Your task to perform on an android device: toggle sleep mode Image 0: 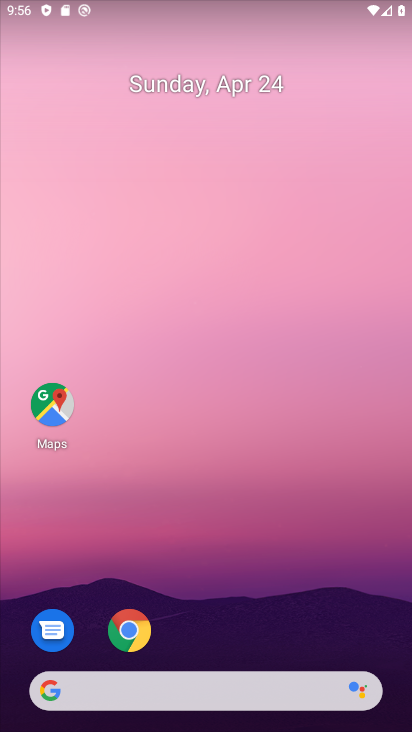
Step 0: drag from (203, 627) to (203, 165)
Your task to perform on an android device: toggle sleep mode Image 1: 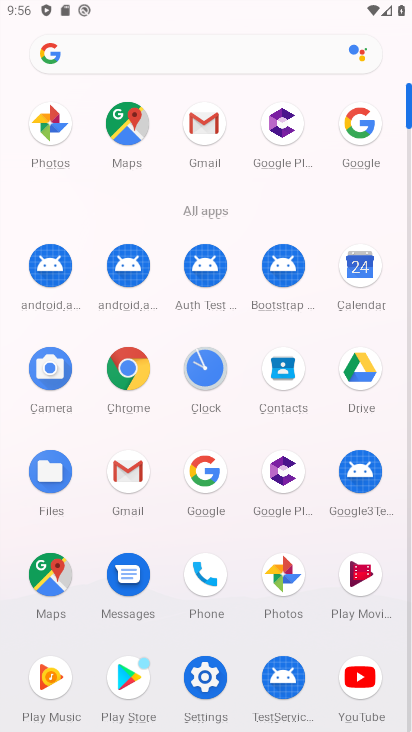
Step 1: click (193, 657)
Your task to perform on an android device: toggle sleep mode Image 2: 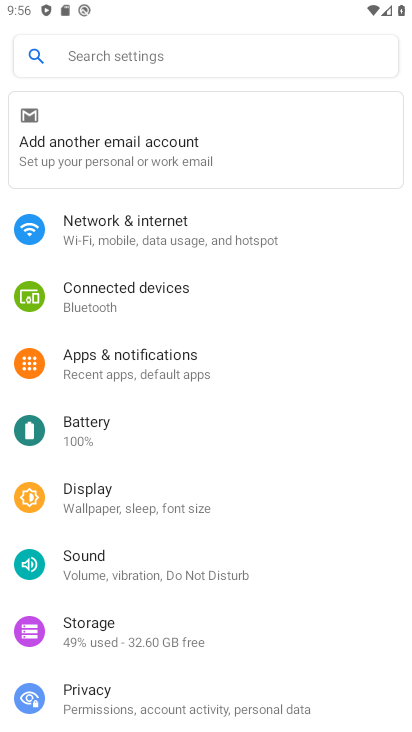
Step 2: click (125, 509)
Your task to perform on an android device: toggle sleep mode Image 3: 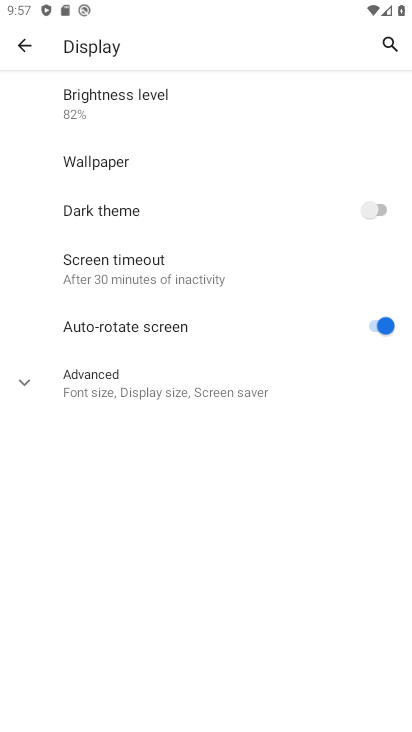
Step 3: click (128, 273)
Your task to perform on an android device: toggle sleep mode Image 4: 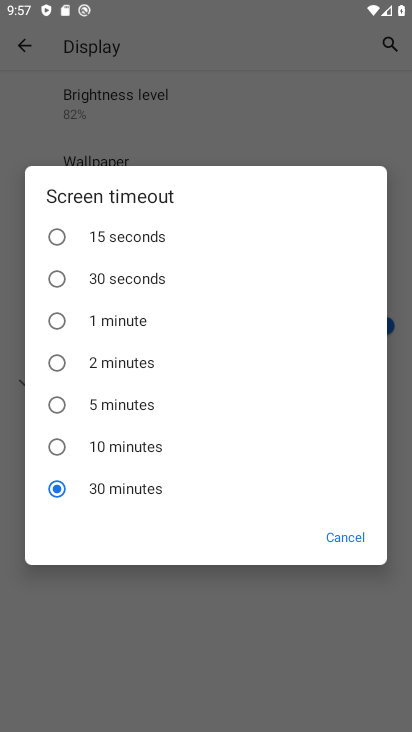
Step 4: click (128, 273)
Your task to perform on an android device: toggle sleep mode Image 5: 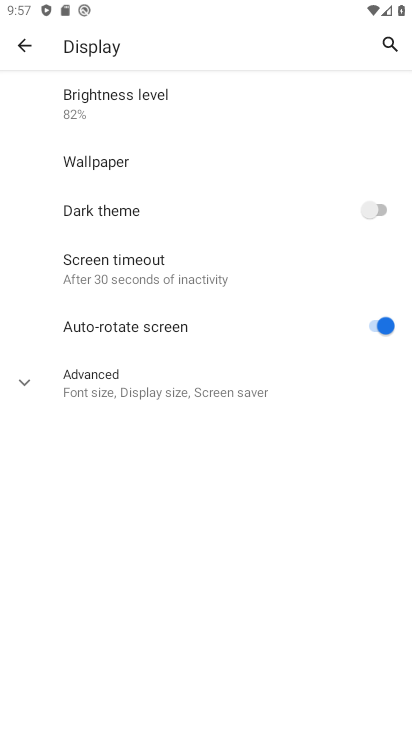
Step 5: task complete